Your task to perform on an android device: open a bookmark in the chrome app Image 0: 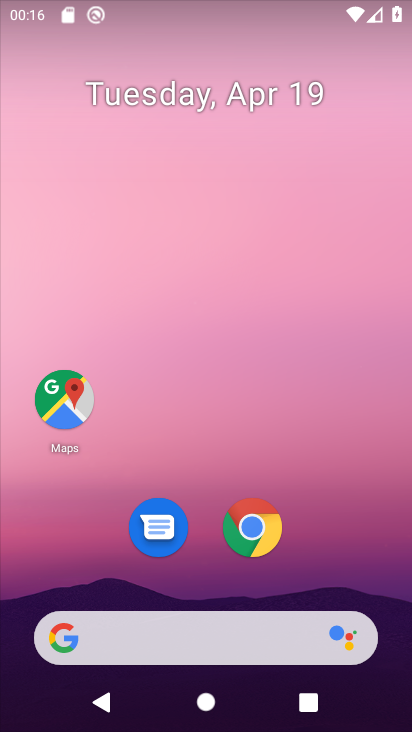
Step 0: click (252, 529)
Your task to perform on an android device: open a bookmark in the chrome app Image 1: 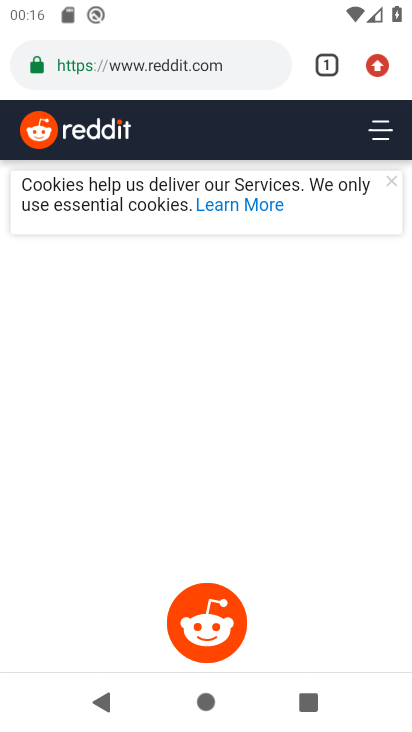
Step 1: click (383, 53)
Your task to perform on an android device: open a bookmark in the chrome app Image 2: 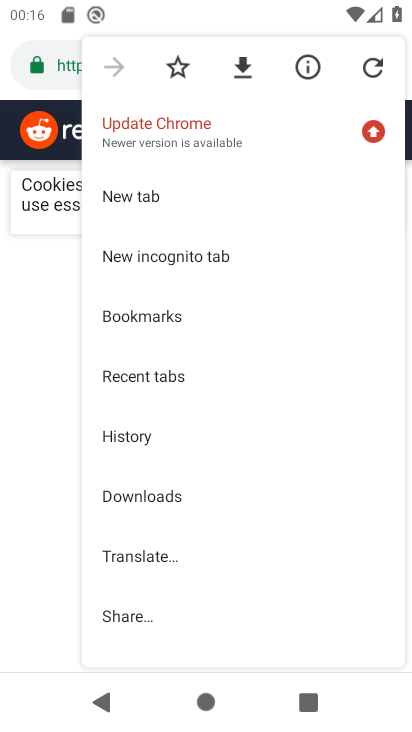
Step 2: click (202, 310)
Your task to perform on an android device: open a bookmark in the chrome app Image 3: 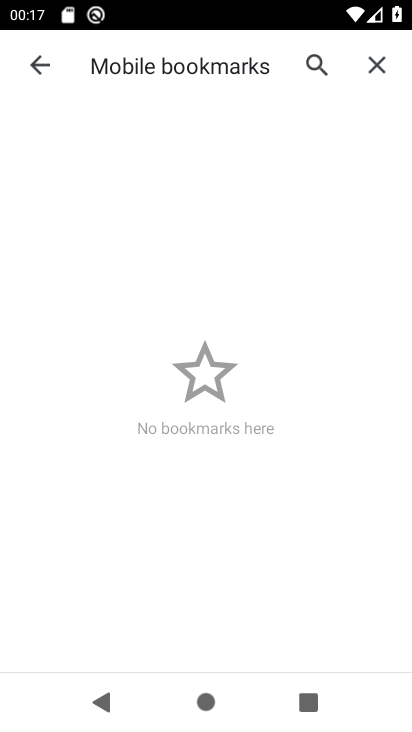
Step 3: task complete